Your task to perform on an android device: allow cookies in the chrome app Image 0: 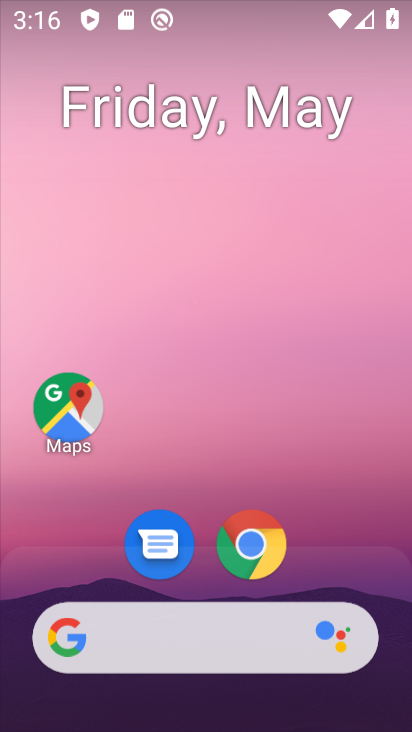
Step 0: drag from (191, 287) to (191, 18)
Your task to perform on an android device: allow cookies in the chrome app Image 1: 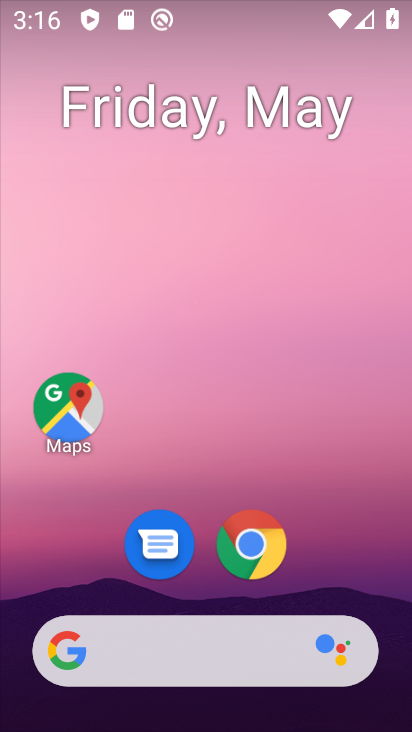
Step 1: drag from (221, 461) to (177, 138)
Your task to perform on an android device: allow cookies in the chrome app Image 2: 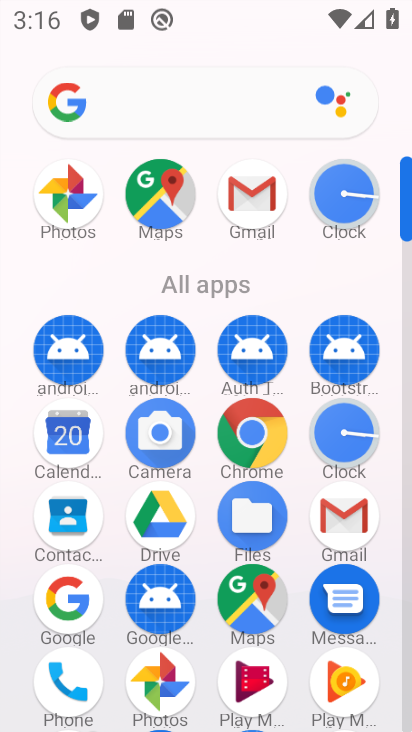
Step 2: drag from (272, 658) to (219, 268)
Your task to perform on an android device: allow cookies in the chrome app Image 3: 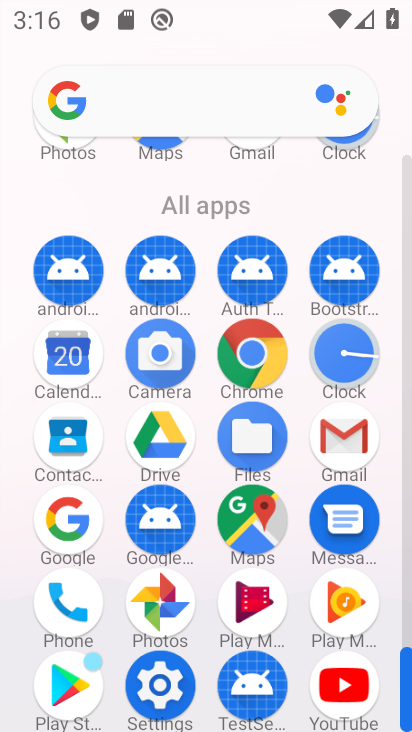
Step 3: click (235, 348)
Your task to perform on an android device: allow cookies in the chrome app Image 4: 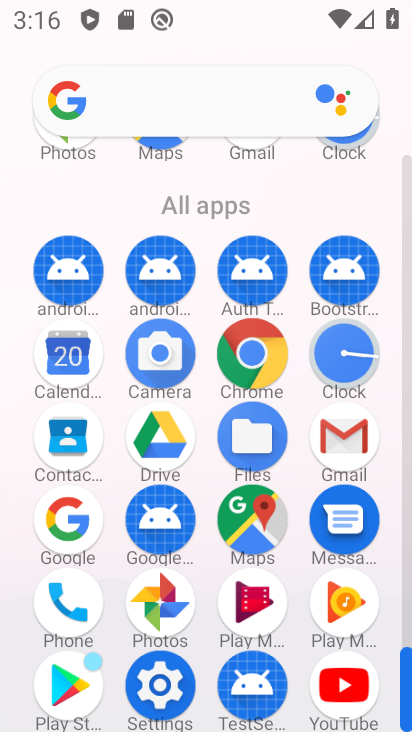
Step 4: click (235, 348)
Your task to perform on an android device: allow cookies in the chrome app Image 5: 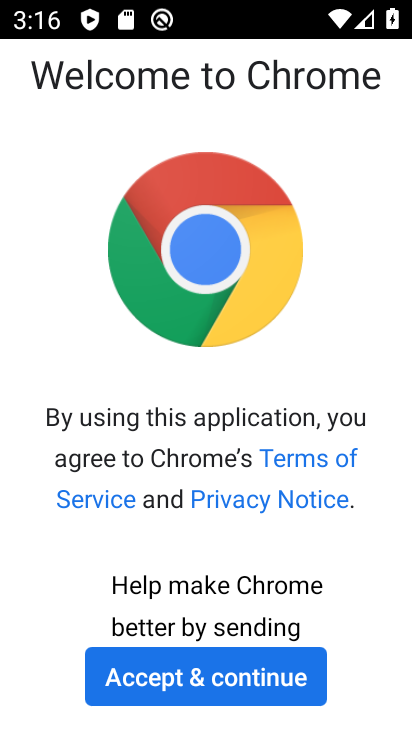
Step 5: click (172, 635)
Your task to perform on an android device: allow cookies in the chrome app Image 6: 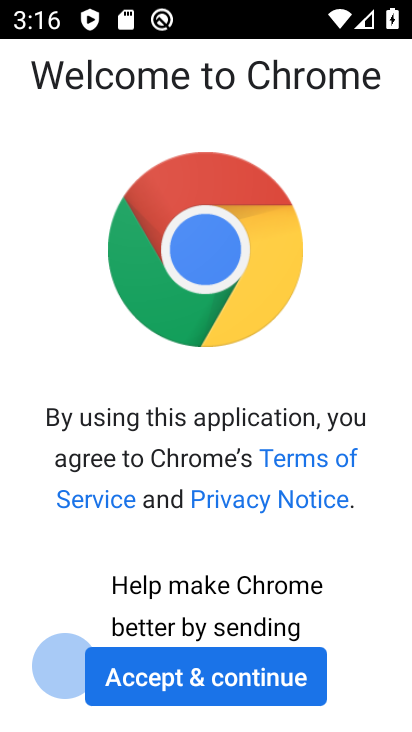
Step 6: click (188, 671)
Your task to perform on an android device: allow cookies in the chrome app Image 7: 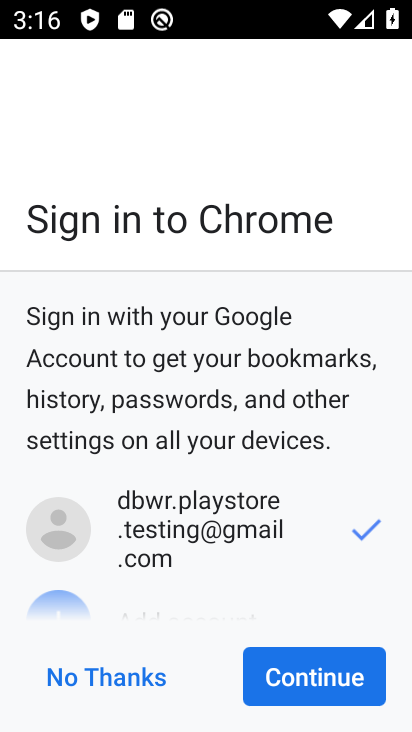
Step 7: click (320, 683)
Your task to perform on an android device: allow cookies in the chrome app Image 8: 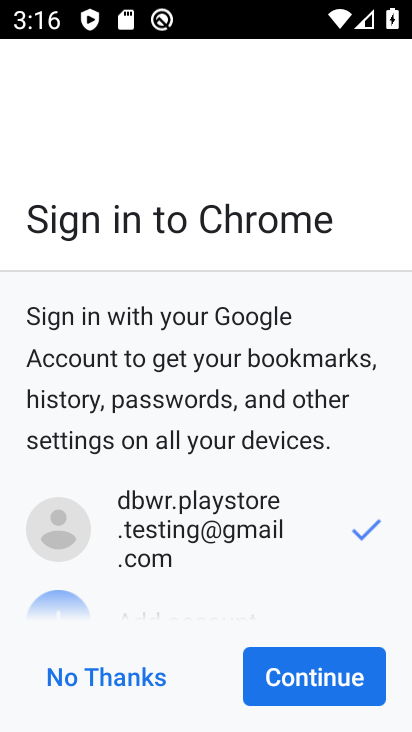
Step 8: click (320, 683)
Your task to perform on an android device: allow cookies in the chrome app Image 9: 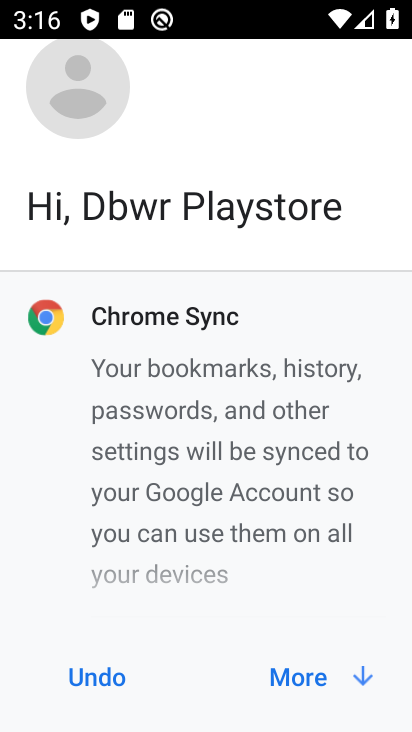
Step 9: click (323, 680)
Your task to perform on an android device: allow cookies in the chrome app Image 10: 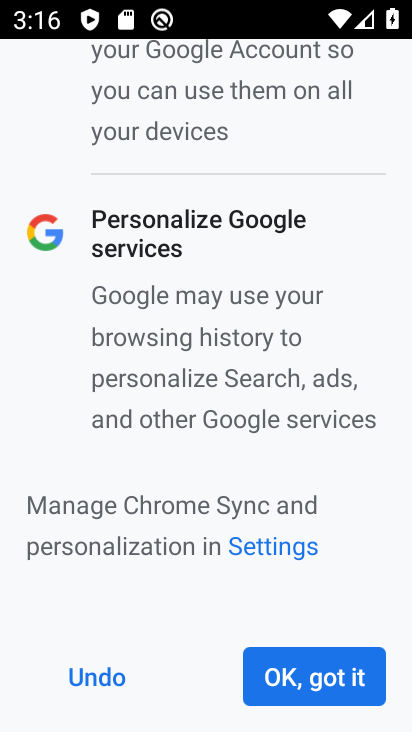
Step 10: click (325, 666)
Your task to perform on an android device: allow cookies in the chrome app Image 11: 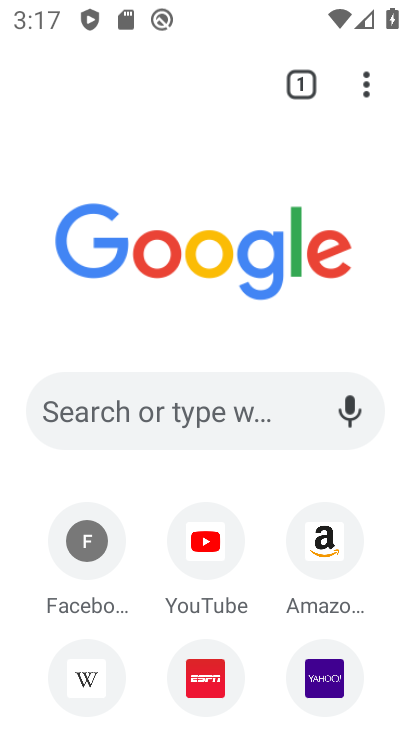
Step 11: press back button
Your task to perform on an android device: allow cookies in the chrome app Image 12: 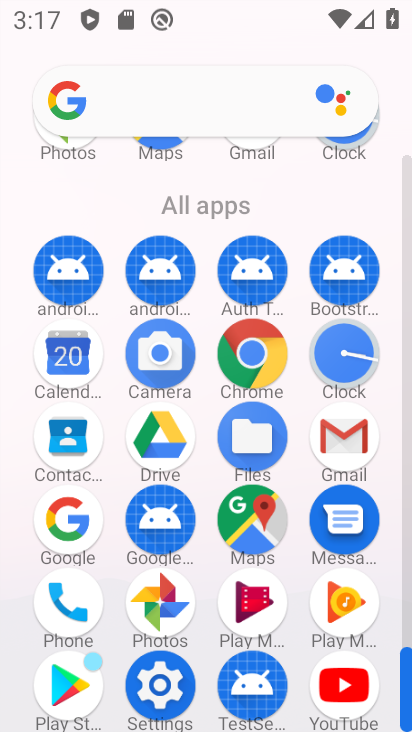
Step 12: click (247, 355)
Your task to perform on an android device: allow cookies in the chrome app Image 13: 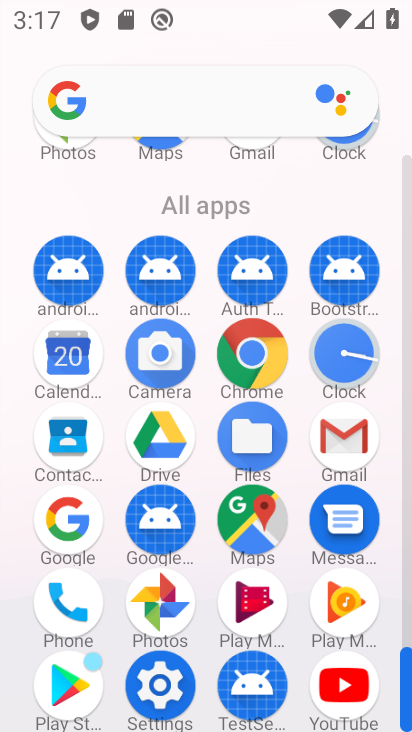
Step 13: click (246, 354)
Your task to perform on an android device: allow cookies in the chrome app Image 14: 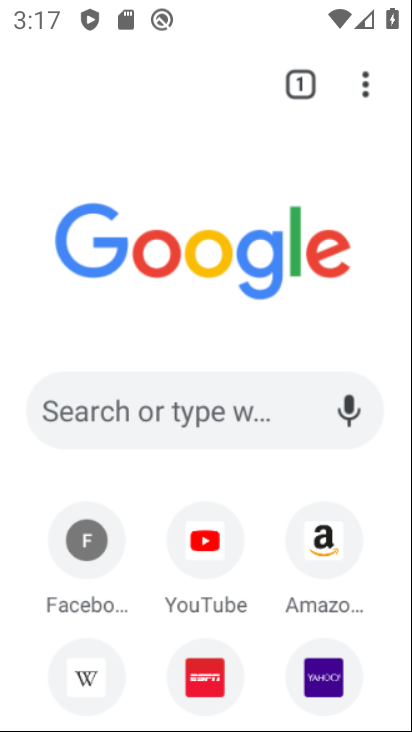
Step 14: click (246, 354)
Your task to perform on an android device: allow cookies in the chrome app Image 15: 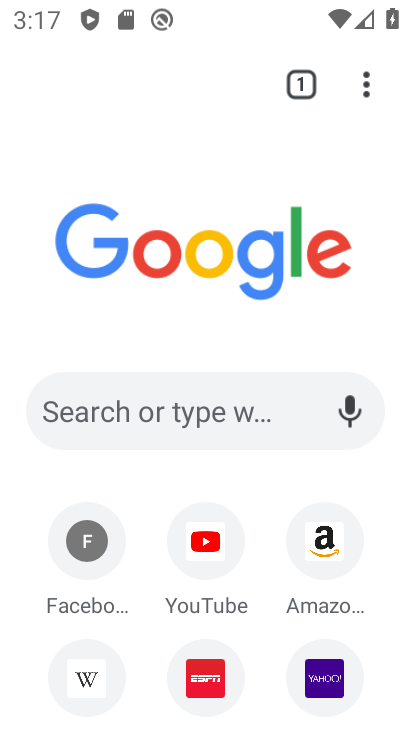
Step 15: drag from (369, 88) to (164, 476)
Your task to perform on an android device: allow cookies in the chrome app Image 16: 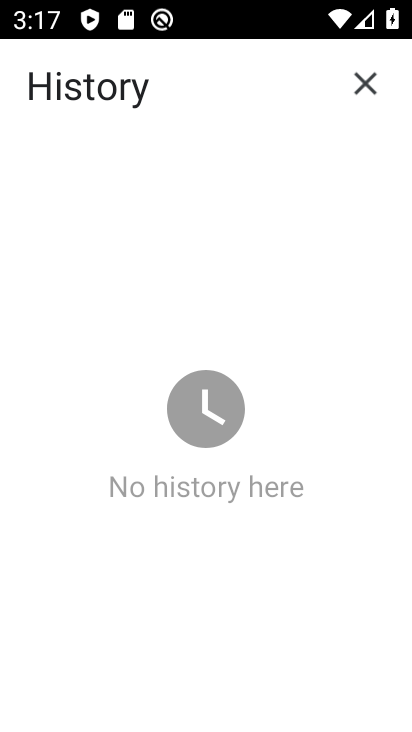
Step 16: click (354, 84)
Your task to perform on an android device: allow cookies in the chrome app Image 17: 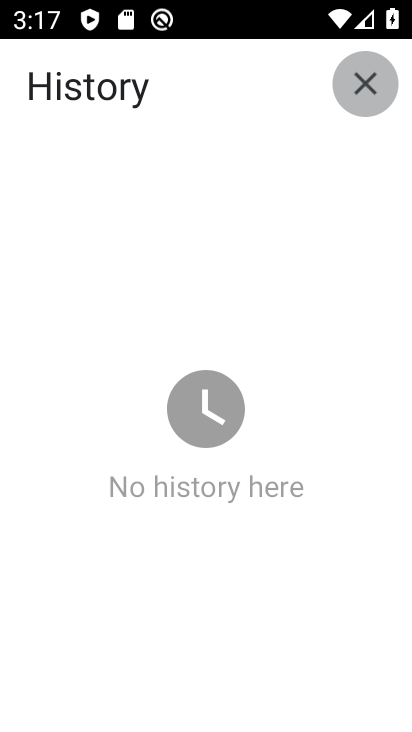
Step 17: click (359, 81)
Your task to perform on an android device: allow cookies in the chrome app Image 18: 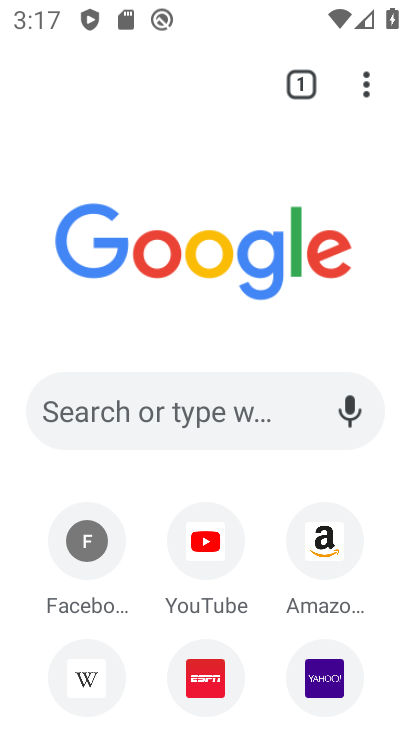
Step 18: drag from (366, 86) to (143, 584)
Your task to perform on an android device: allow cookies in the chrome app Image 19: 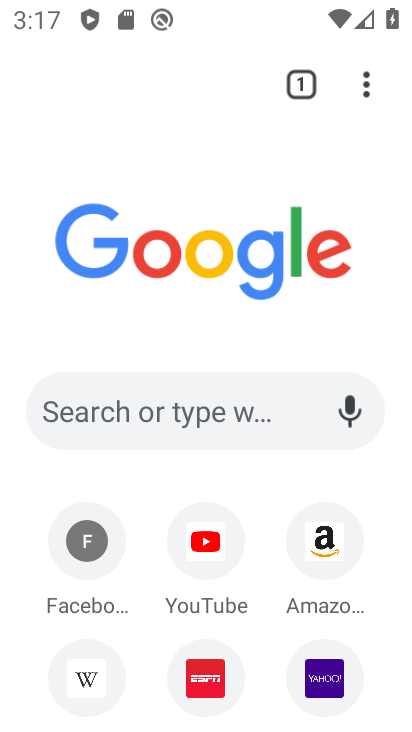
Step 19: drag from (190, 529) to (165, 45)
Your task to perform on an android device: allow cookies in the chrome app Image 20: 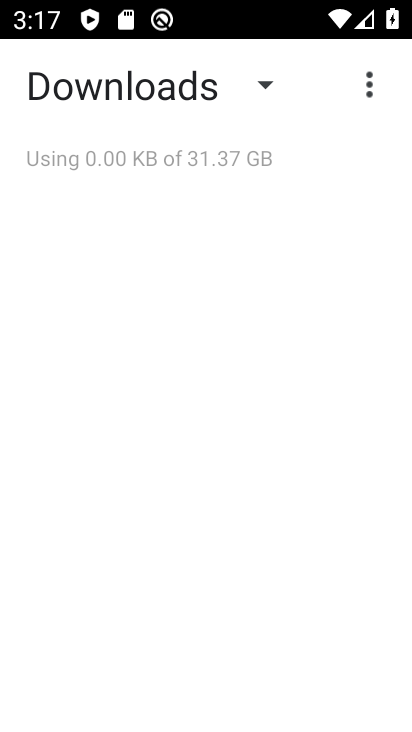
Step 20: press back button
Your task to perform on an android device: allow cookies in the chrome app Image 21: 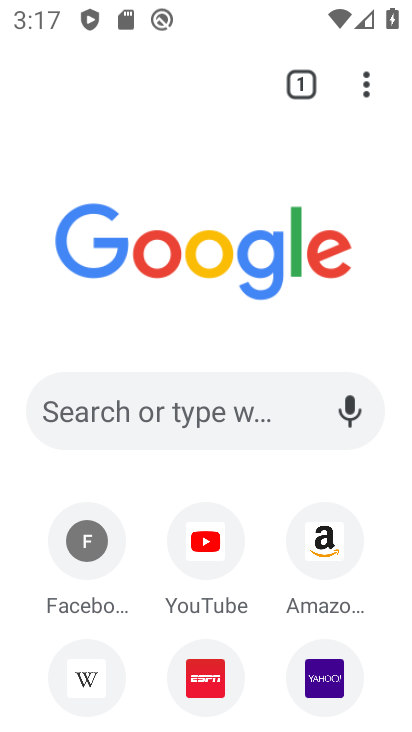
Step 21: drag from (365, 88) to (132, 674)
Your task to perform on an android device: allow cookies in the chrome app Image 22: 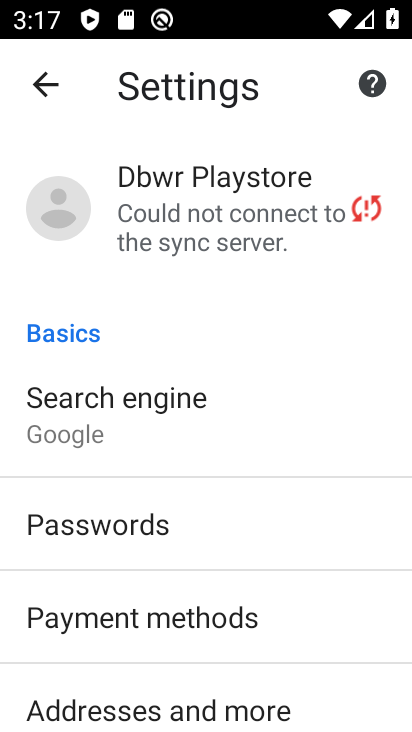
Step 22: drag from (155, 613) to (148, 147)
Your task to perform on an android device: allow cookies in the chrome app Image 23: 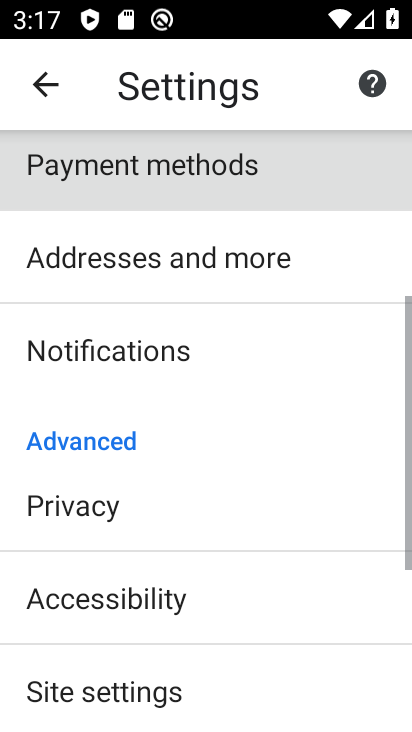
Step 23: drag from (153, 444) to (131, 74)
Your task to perform on an android device: allow cookies in the chrome app Image 24: 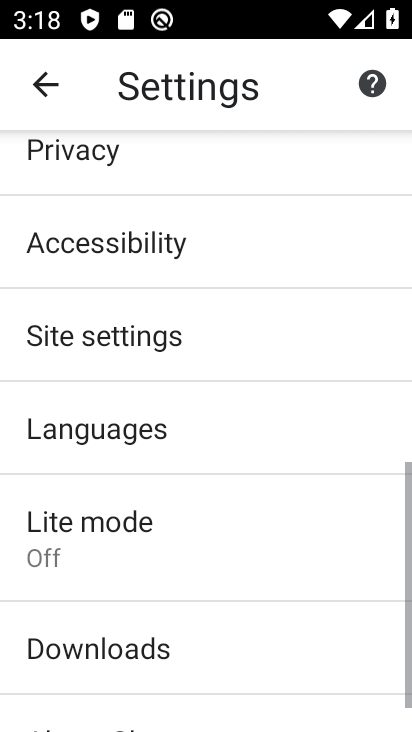
Step 24: drag from (172, 559) to (132, 77)
Your task to perform on an android device: allow cookies in the chrome app Image 25: 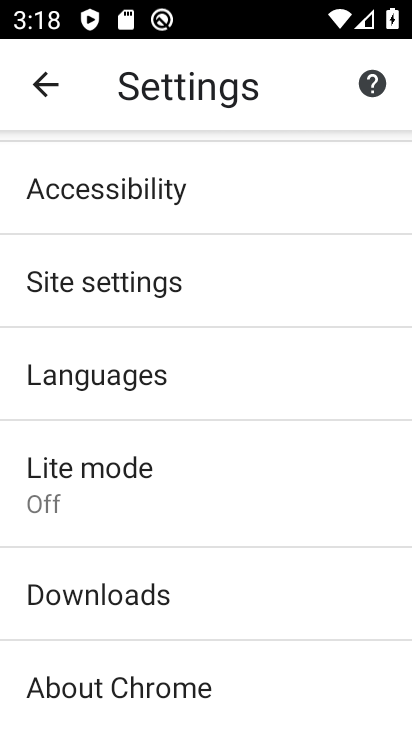
Step 25: click (88, 283)
Your task to perform on an android device: allow cookies in the chrome app Image 26: 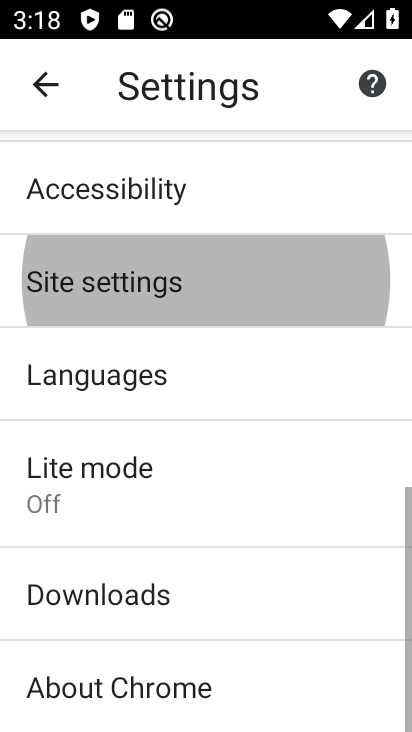
Step 26: click (81, 284)
Your task to perform on an android device: allow cookies in the chrome app Image 27: 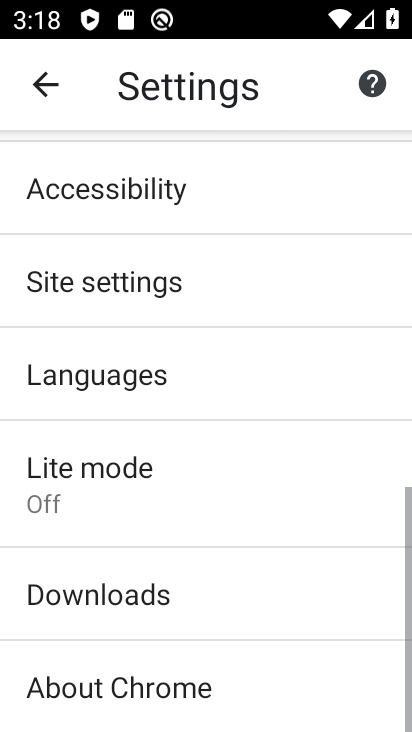
Step 27: click (81, 284)
Your task to perform on an android device: allow cookies in the chrome app Image 28: 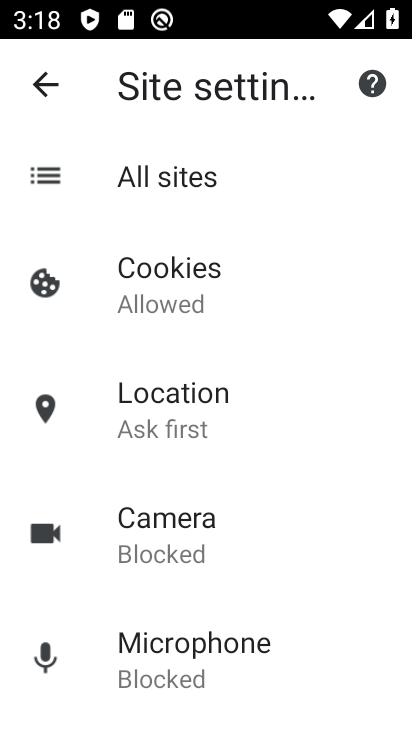
Step 28: click (161, 303)
Your task to perform on an android device: allow cookies in the chrome app Image 29: 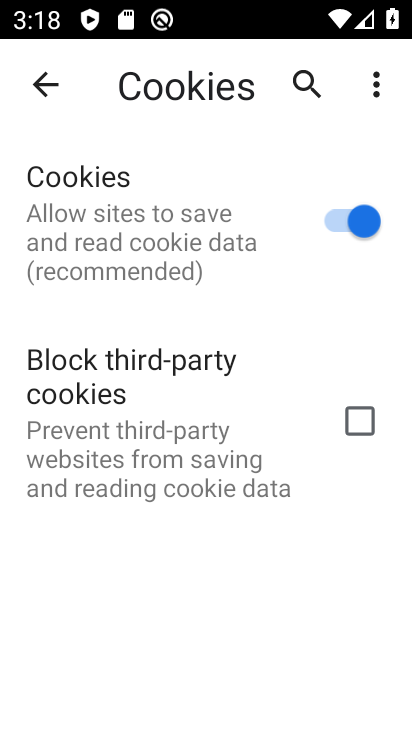
Step 29: task complete